Your task to perform on an android device: turn off smart reply in the gmail app Image 0: 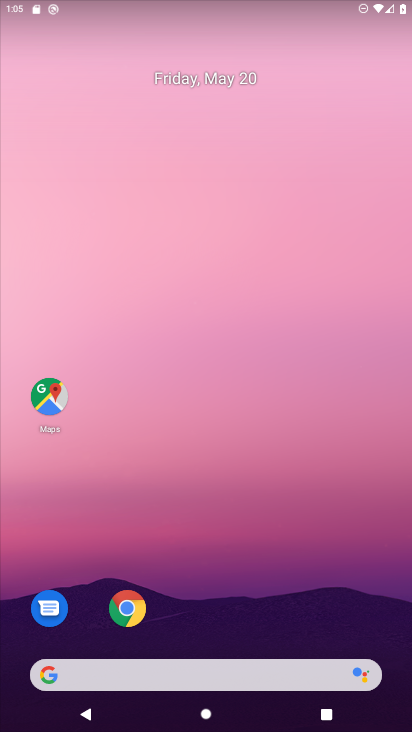
Step 0: press home button
Your task to perform on an android device: turn off smart reply in the gmail app Image 1: 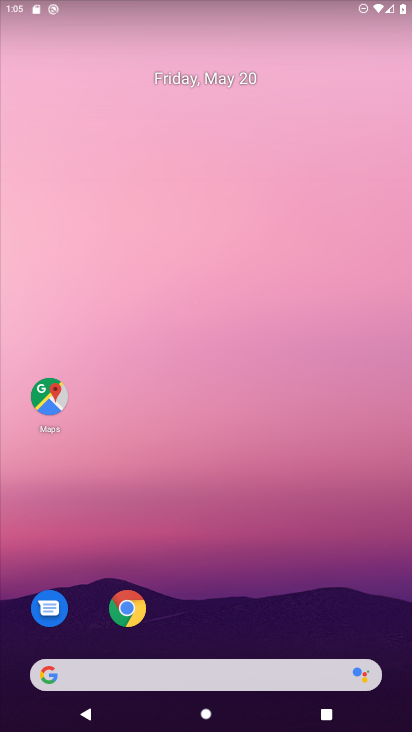
Step 1: drag from (306, 611) to (338, 178)
Your task to perform on an android device: turn off smart reply in the gmail app Image 2: 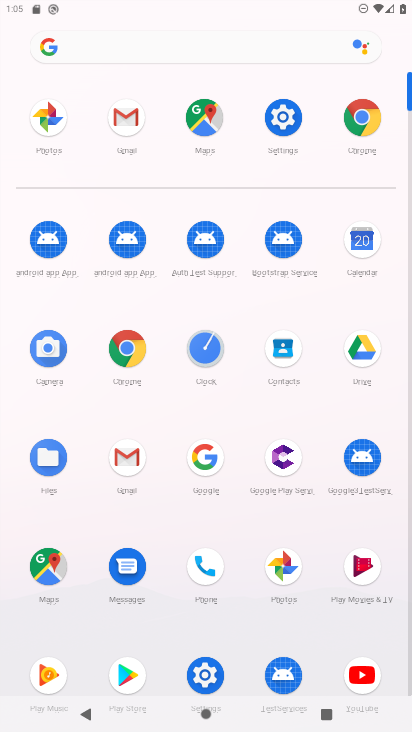
Step 2: click (146, 108)
Your task to perform on an android device: turn off smart reply in the gmail app Image 3: 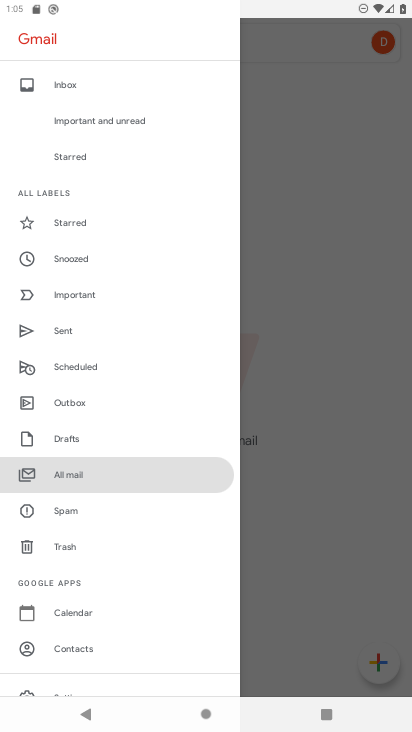
Step 3: drag from (78, 560) to (86, 226)
Your task to perform on an android device: turn off smart reply in the gmail app Image 4: 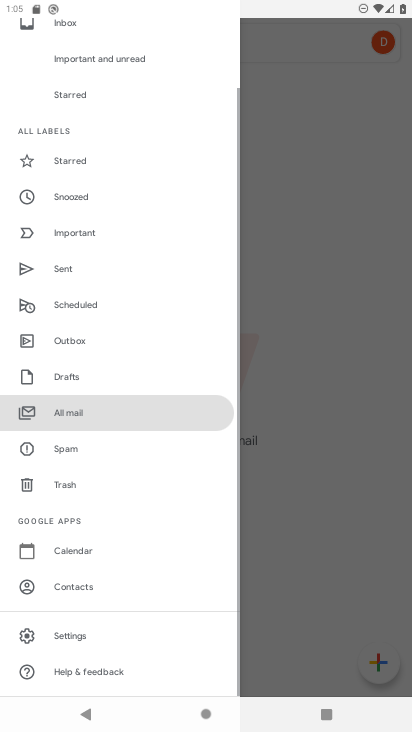
Step 4: click (67, 647)
Your task to perform on an android device: turn off smart reply in the gmail app Image 5: 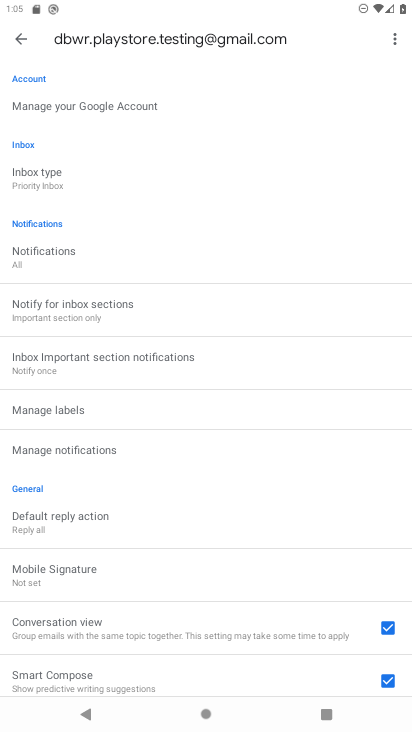
Step 5: drag from (179, 608) to (218, 293)
Your task to perform on an android device: turn off smart reply in the gmail app Image 6: 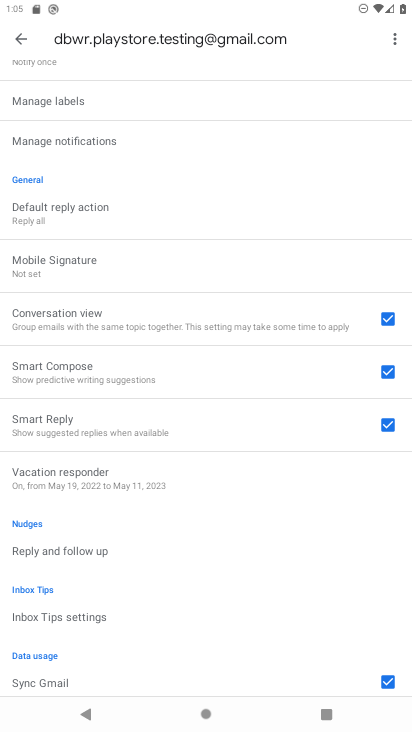
Step 6: click (62, 414)
Your task to perform on an android device: turn off smart reply in the gmail app Image 7: 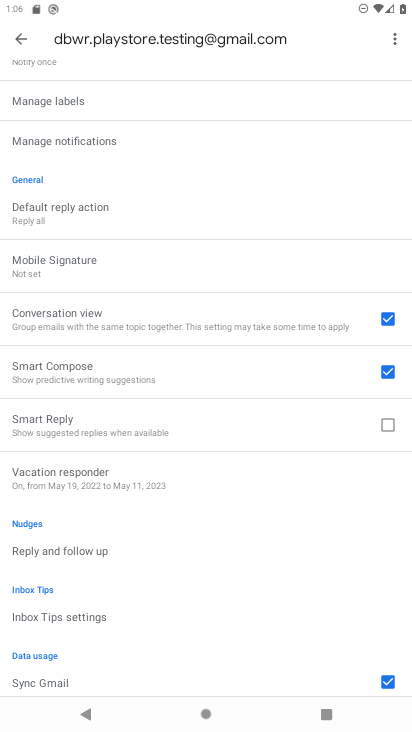
Step 7: task complete